Your task to perform on an android device: Go to display settings Image 0: 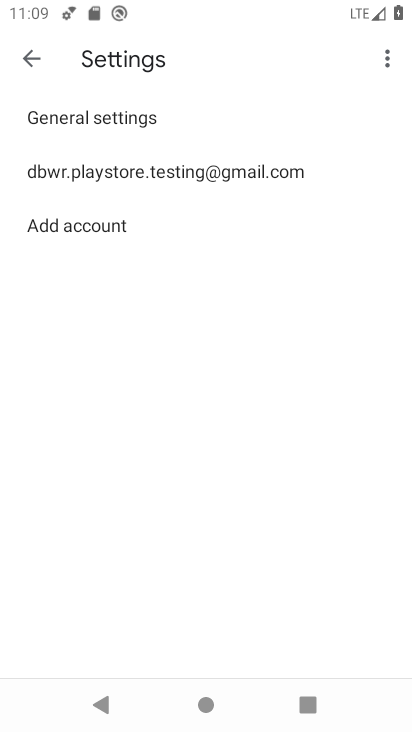
Step 0: press home button
Your task to perform on an android device: Go to display settings Image 1: 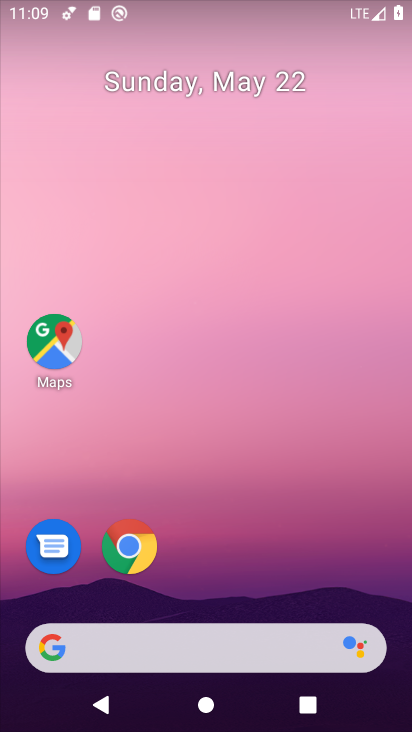
Step 1: drag from (286, 586) to (304, 114)
Your task to perform on an android device: Go to display settings Image 2: 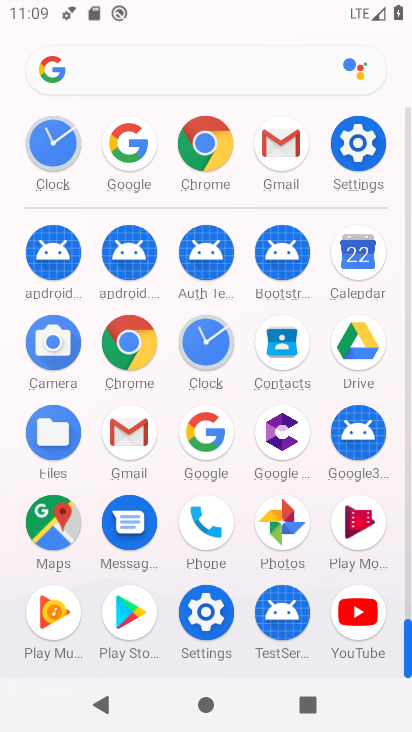
Step 2: click (364, 148)
Your task to perform on an android device: Go to display settings Image 3: 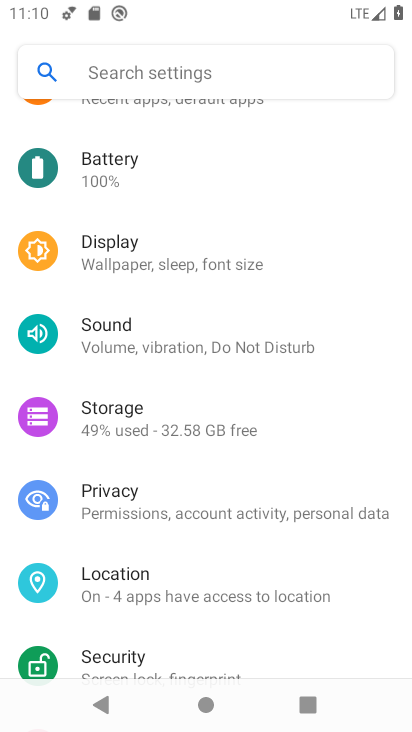
Step 3: click (218, 278)
Your task to perform on an android device: Go to display settings Image 4: 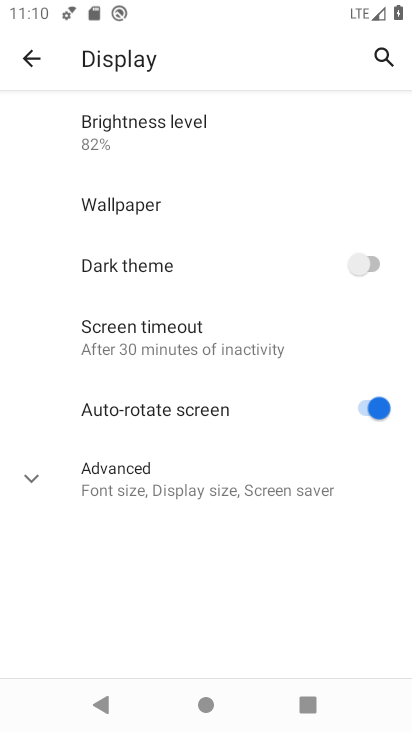
Step 4: click (226, 495)
Your task to perform on an android device: Go to display settings Image 5: 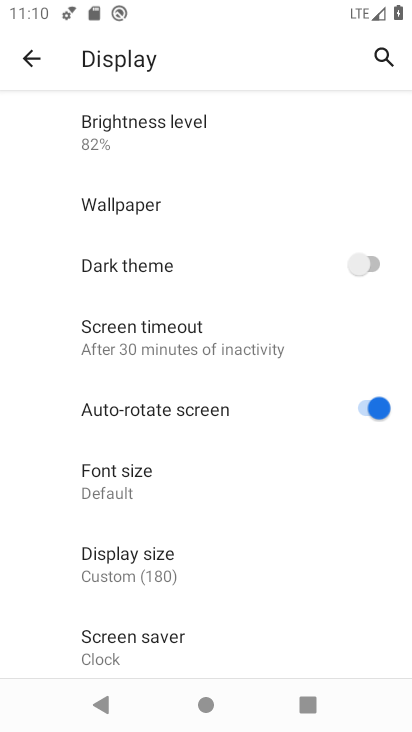
Step 5: task complete